Your task to perform on an android device: move a message to another label in the gmail app Image 0: 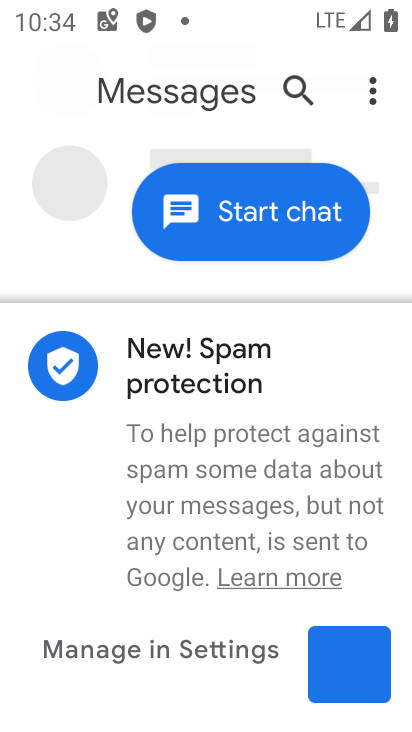
Step 0: press home button
Your task to perform on an android device: move a message to another label in the gmail app Image 1: 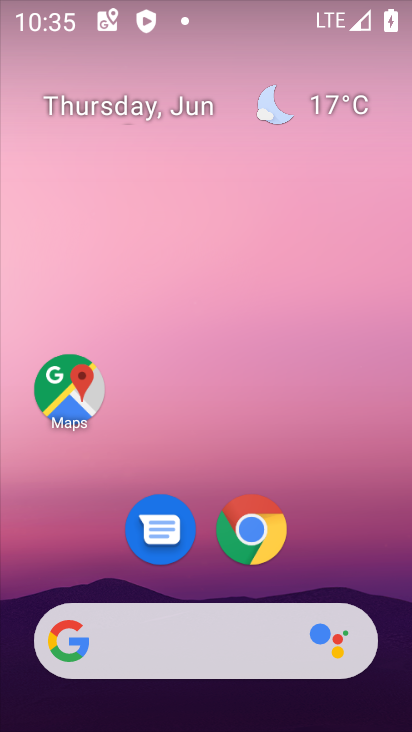
Step 1: drag from (203, 559) to (359, 0)
Your task to perform on an android device: move a message to another label in the gmail app Image 2: 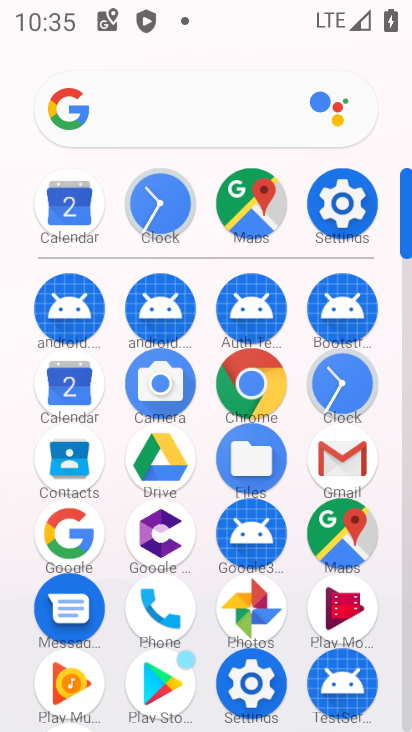
Step 2: click (343, 448)
Your task to perform on an android device: move a message to another label in the gmail app Image 3: 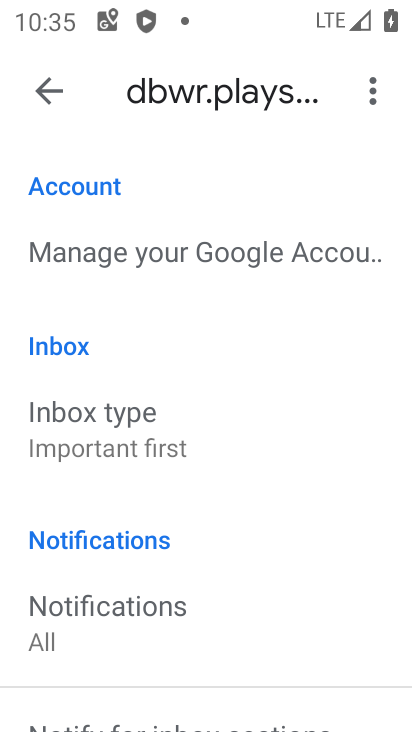
Step 3: click (52, 101)
Your task to perform on an android device: move a message to another label in the gmail app Image 4: 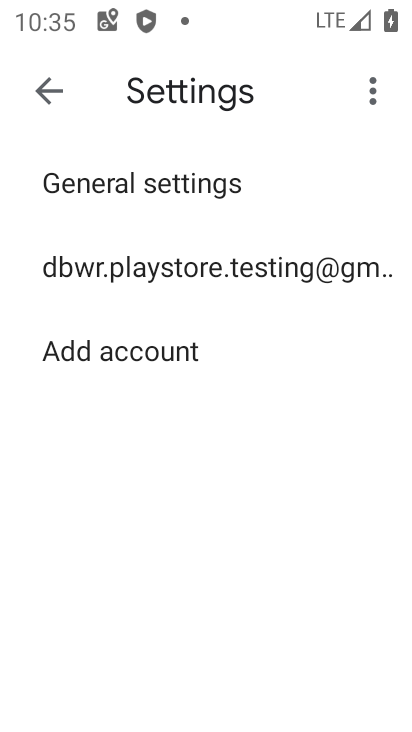
Step 4: click (52, 102)
Your task to perform on an android device: move a message to another label in the gmail app Image 5: 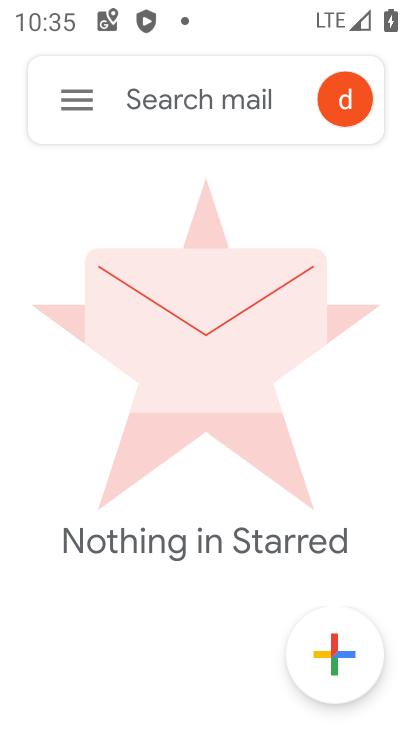
Step 5: click (82, 102)
Your task to perform on an android device: move a message to another label in the gmail app Image 6: 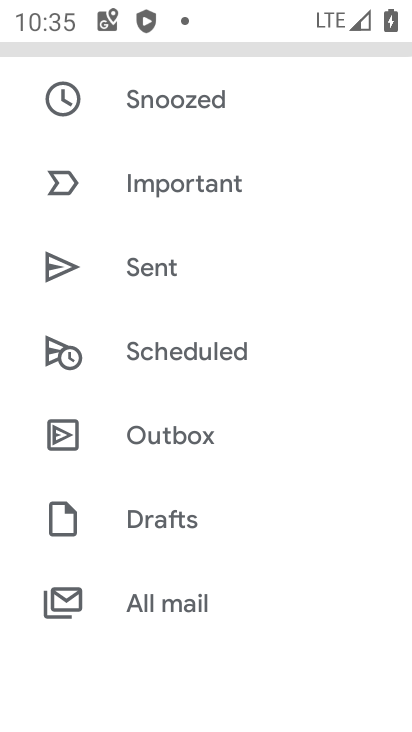
Step 6: click (183, 587)
Your task to perform on an android device: move a message to another label in the gmail app Image 7: 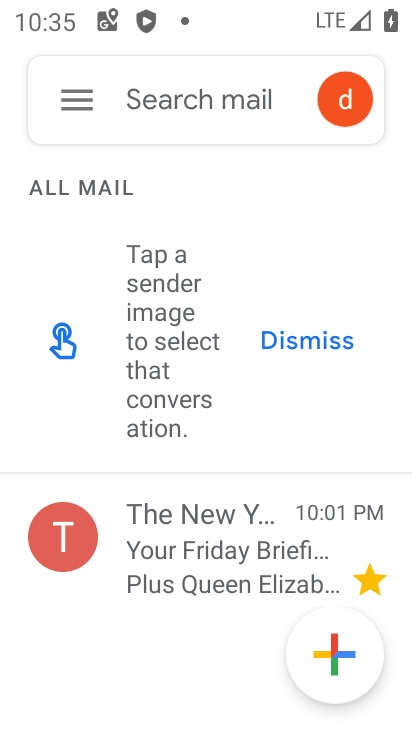
Step 7: click (247, 551)
Your task to perform on an android device: move a message to another label in the gmail app Image 8: 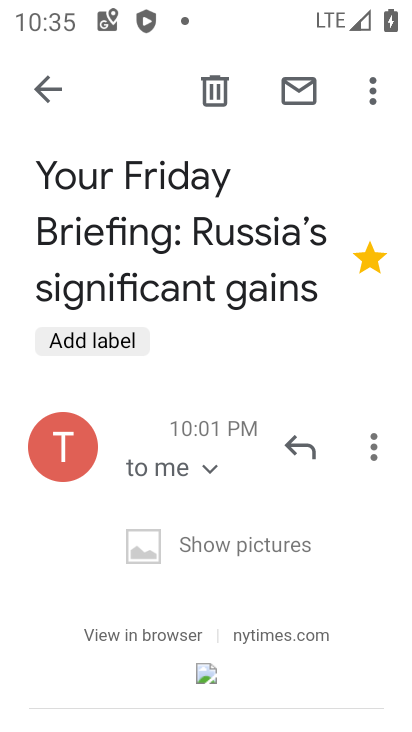
Step 8: click (70, 342)
Your task to perform on an android device: move a message to another label in the gmail app Image 9: 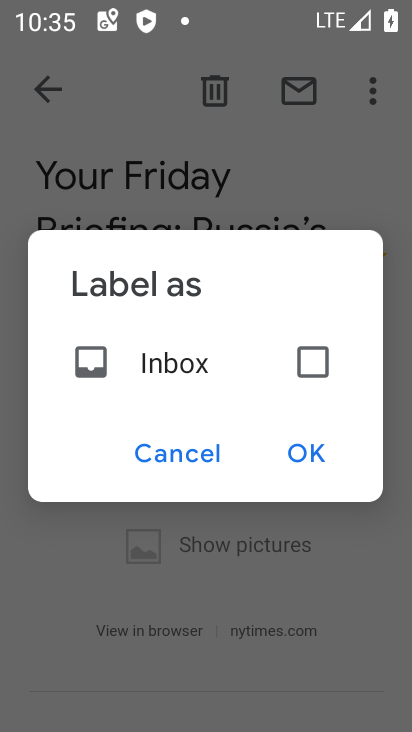
Step 9: click (315, 372)
Your task to perform on an android device: move a message to another label in the gmail app Image 10: 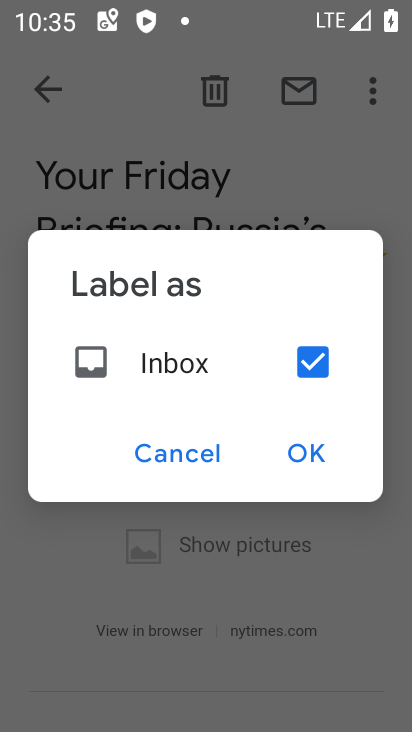
Step 10: click (296, 449)
Your task to perform on an android device: move a message to another label in the gmail app Image 11: 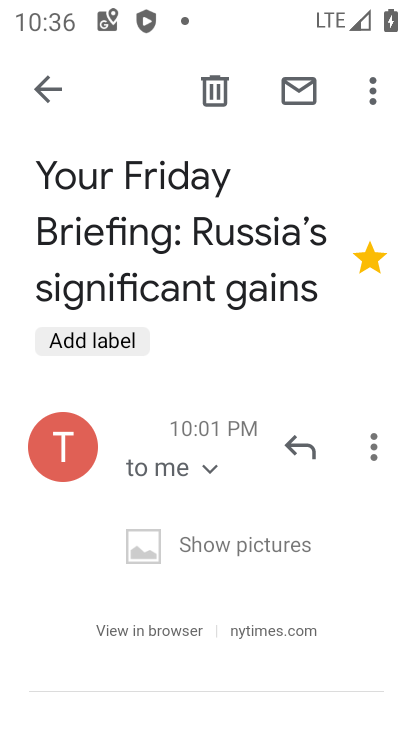
Step 11: task complete